Your task to perform on an android device: turn pop-ups off in chrome Image 0: 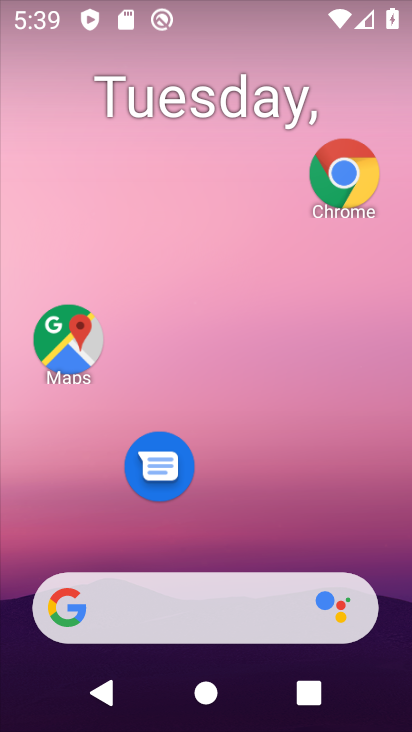
Step 0: drag from (375, 685) to (346, 103)
Your task to perform on an android device: turn pop-ups off in chrome Image 1: 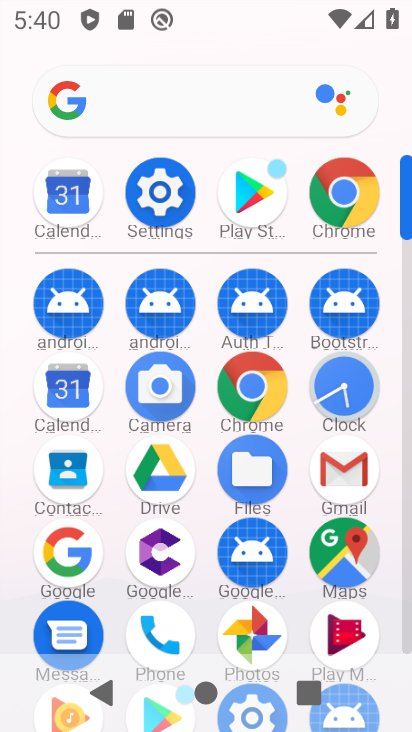
Step 1: click (315, 207)
Your task to perform on an android device: turn pop-ups off in chrome Image 2: 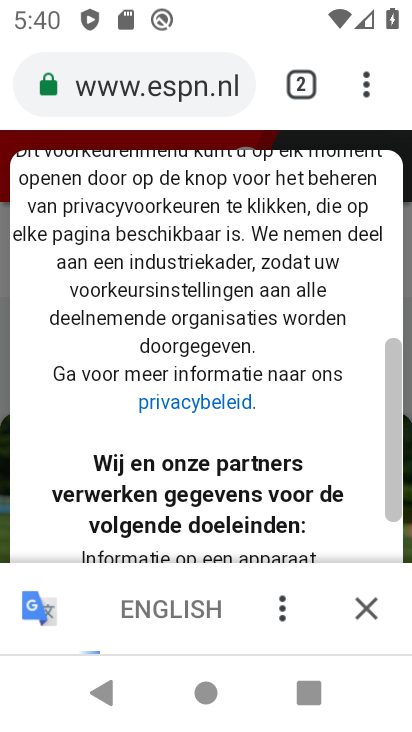
Step 2: drag from (371, 68) to (115, 525)
Your task to perform on an android device: turn pop-ups off in chrome Image 3: 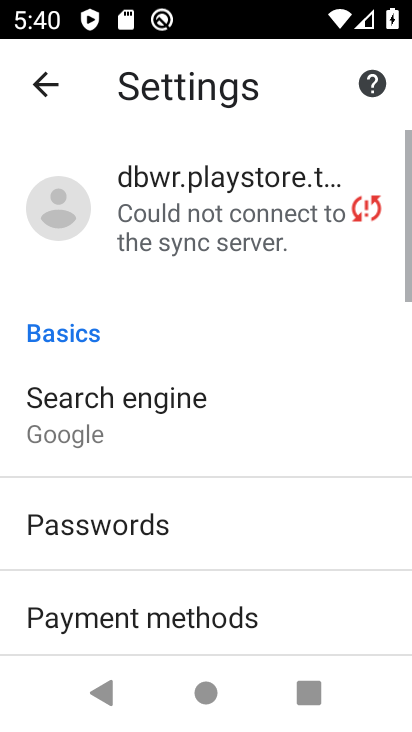
Step 3: drag from (115, 525) to (194, 101)
Your task to perform on an android device: turn pop-ups off in chrome Image 4: 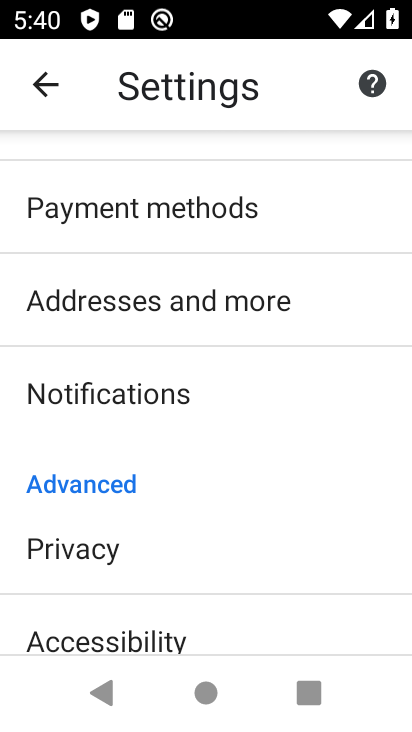
Step 4: drag from (103, 509) to (156, 202)
Your task to perform on an android device: turn pop-ups off in chrome Image 5: 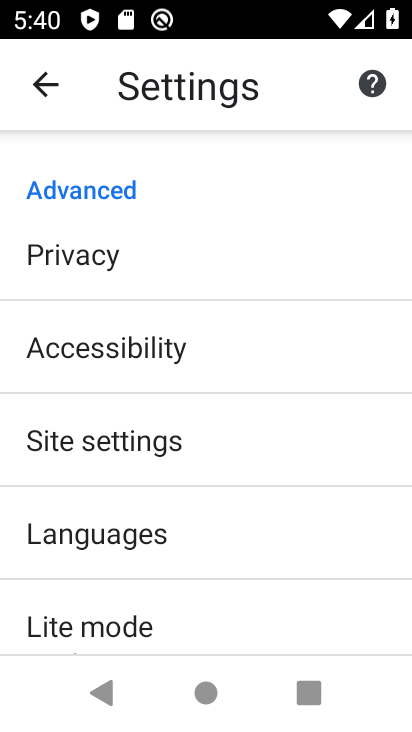
Step 5: click (120, 426)
Your task to perform on an android device: turn pop-ups off in chrome Image 6: 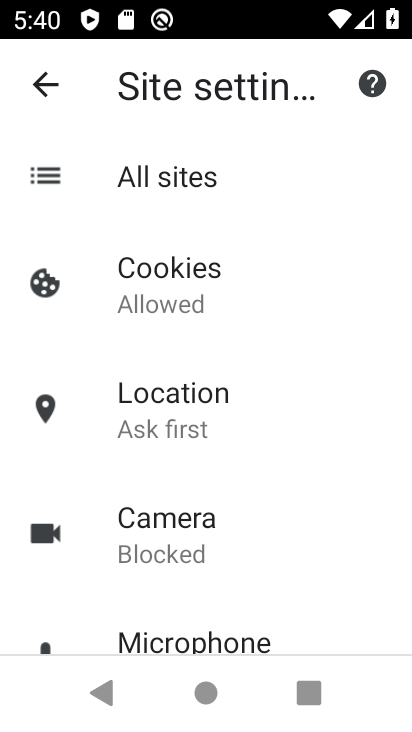
Step 6: drag from (150, 570) to (172, 139)
Your task to perform on an android device: turn pop-ups off in chrome Image 7: 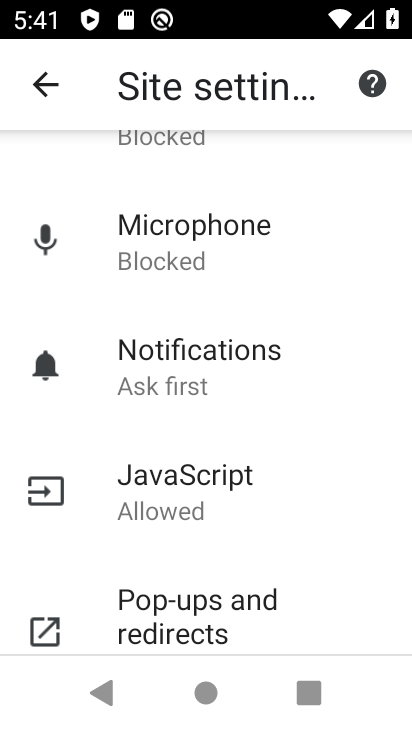
Step 7: drag from (182, 486) to (188, 321)
Your task to perform on an android device: turn pop-ups off in chrome Image 8: 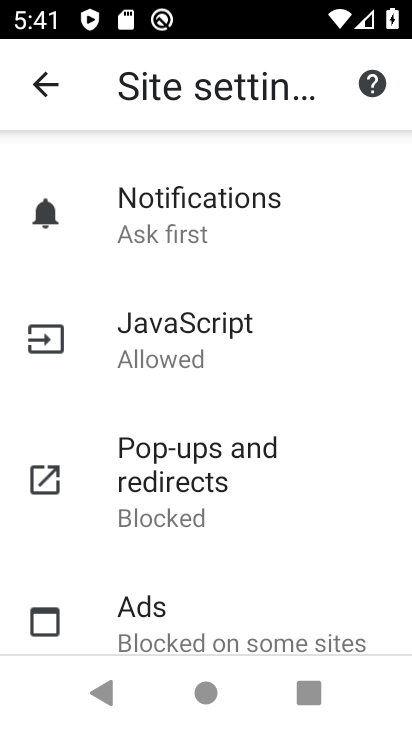
Step 8: click (200, 437)
Your task to perform on an android device: turn pop-ups off in chrome Image 9: 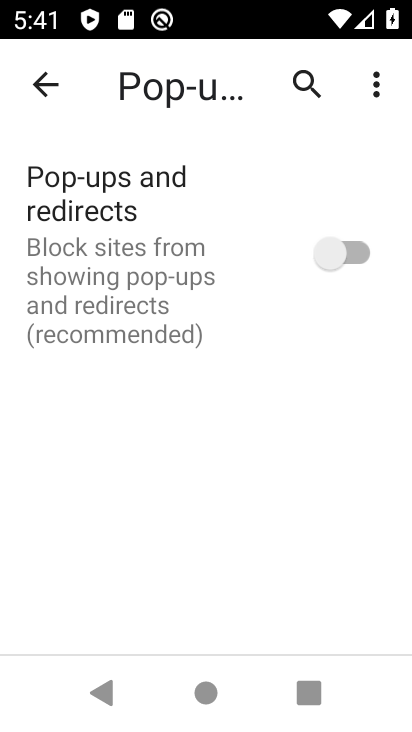
Step 9: task complete